Your task to perform on an android device: check out phone information Image 0: 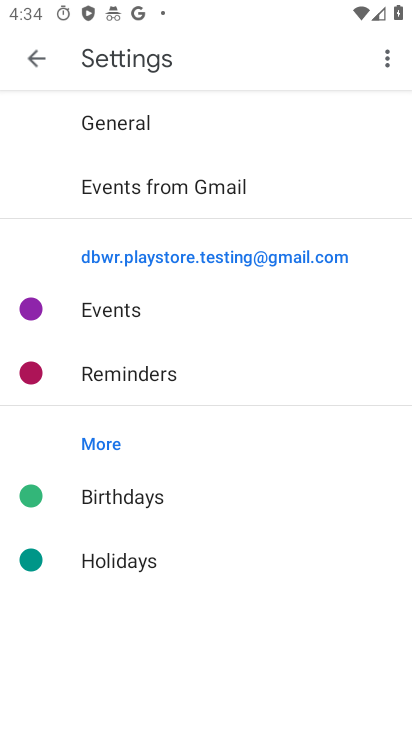
Step 0: press home button
Your task to perform on an android device: check out phone information Image 1: 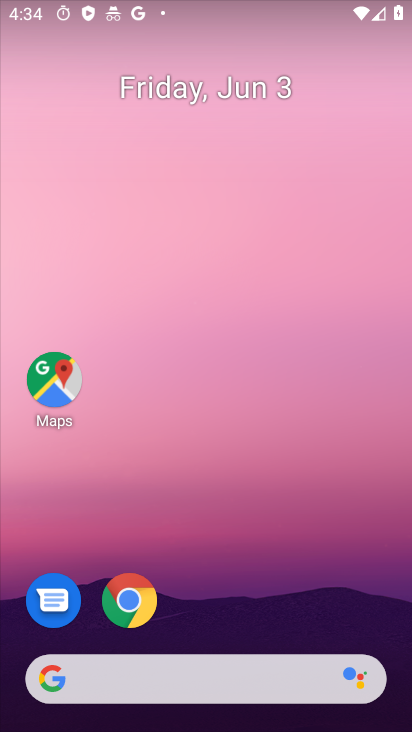
Step 1: drag from (390, 636) to (310, 116)
Your task to perform on an android device: check out phone information Image 2: 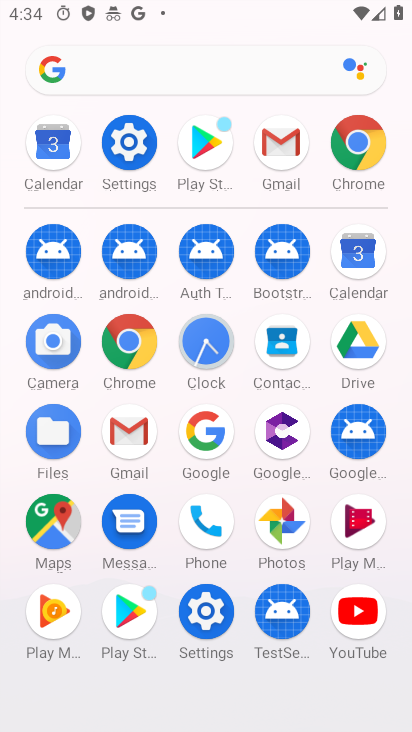
Step 2: click (200, 526)
Your task to perform on an android device: check out phone information Image 3: 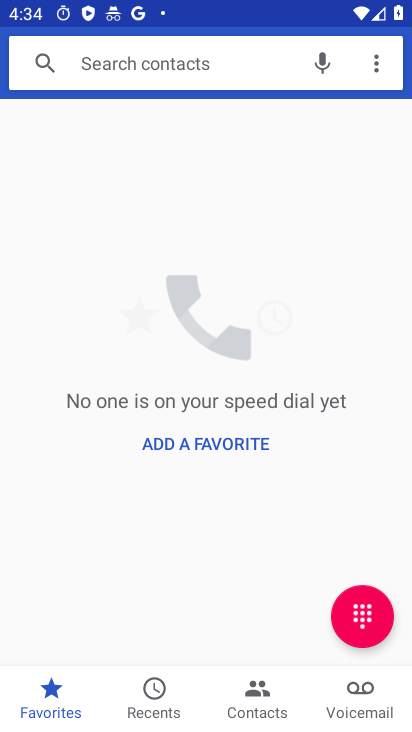
Step 3: press back button
Your task to perform on an android device: check out phone information Image 4: 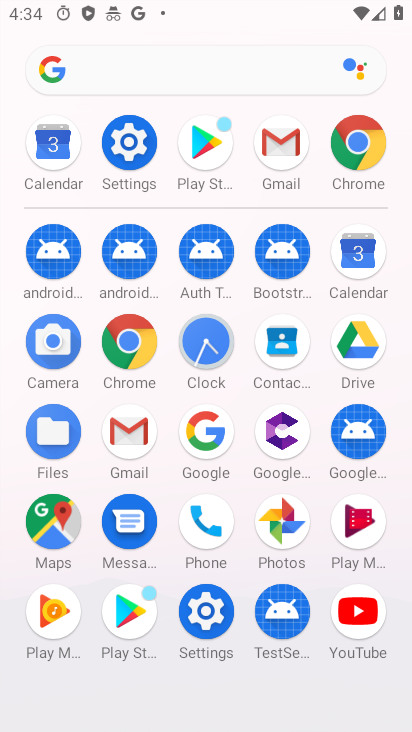
Step 4: click (212, 608)
Your task to perform on an android device: check out phone information Image 5: 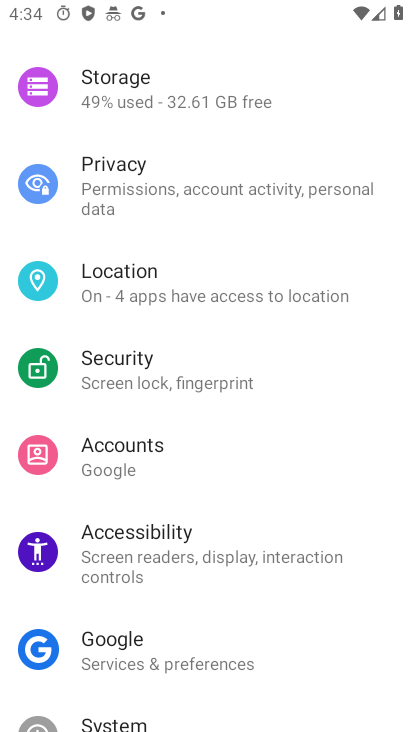
Step 5: drag from (345, 698) to (339, 276)
Your task to perform on an android device: check out phone information Image 6: 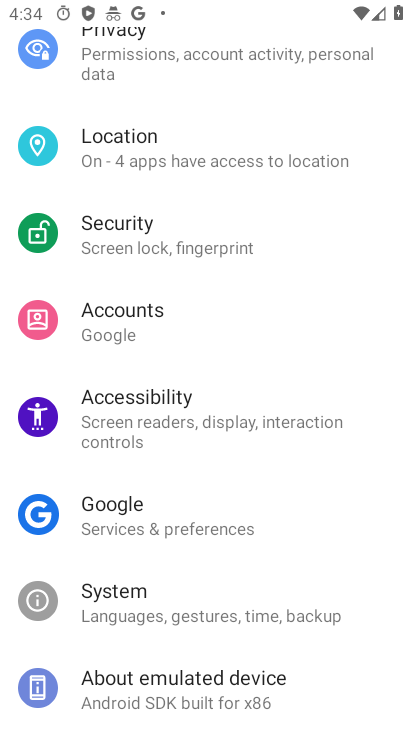
Step 6: drag from (322, 628) to (328, 230)
Your task to perform on an android device: check out phone information Image 7: 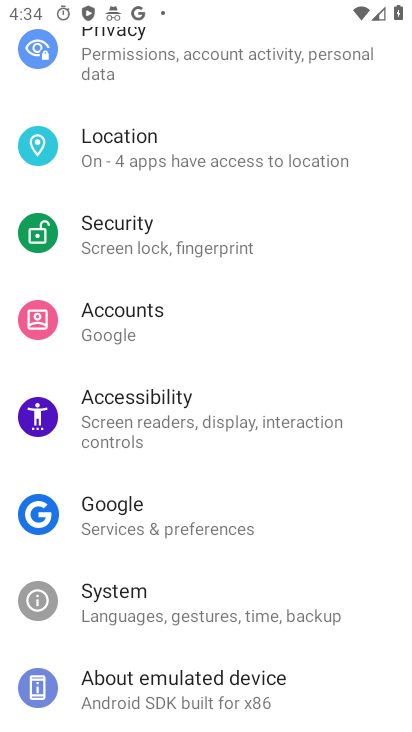
Step 7: click (135, 673)
Your task to perform on an android device: check out phone information Image 8: 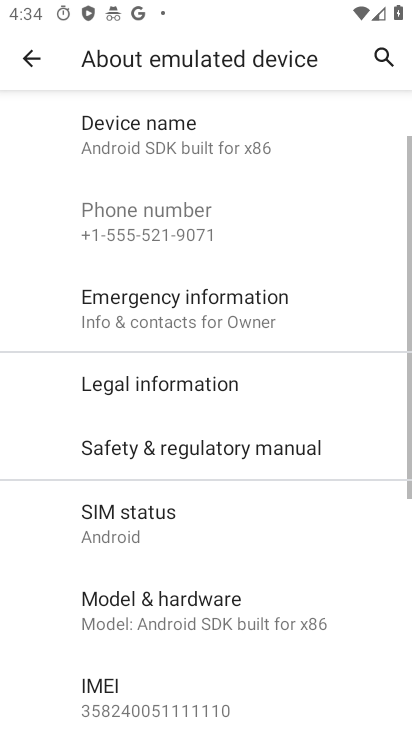
Step 8: task complete